Your task to perform on an android device: Open ESPN.com Image 0: 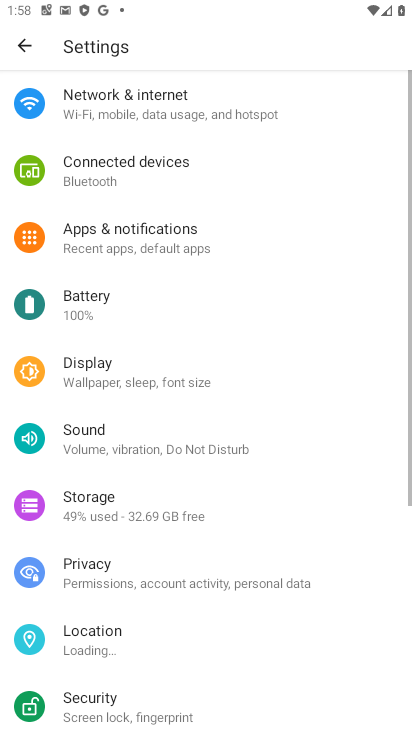
Step 0: press home button
Your task to perform on an android device: Open ESPN.com Image 1: 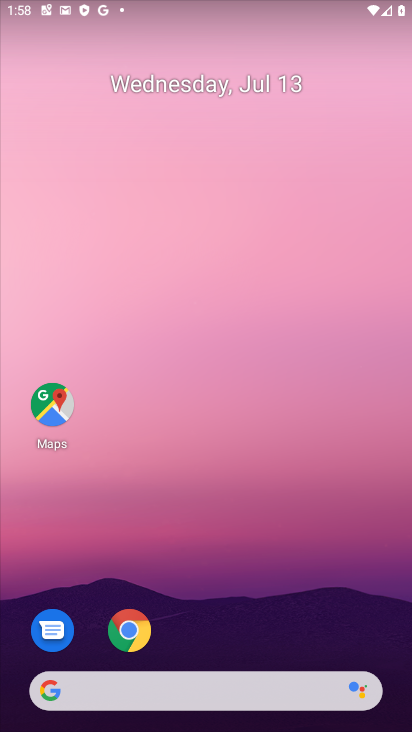
Step 1: drag from (247, 633) to (336, 86)
Your task to perform on an android device: Open ESPN.com Image 2: 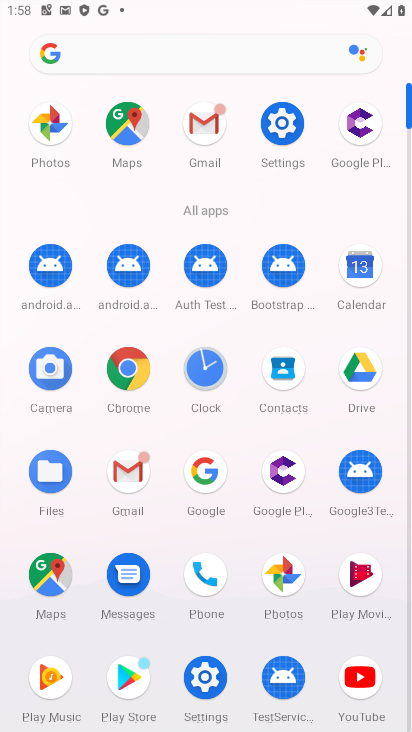
Step 2: click (208, 471)
Your task to perform on an android device: Open ESPN.com Image 3: 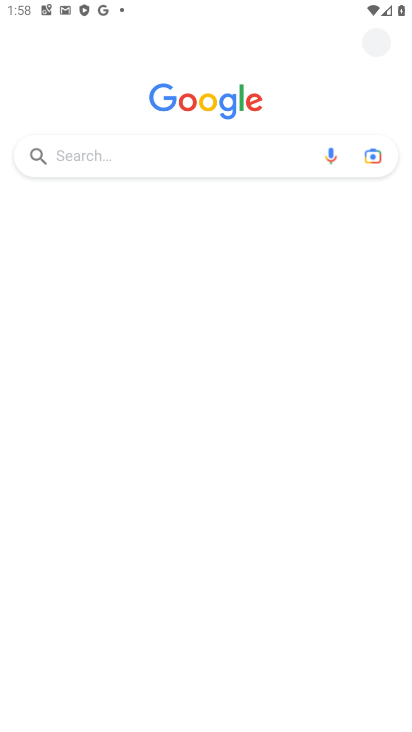
Step 3: click (160, 160)
Your task to perform on an android device: Open ESPN.com Image 4: 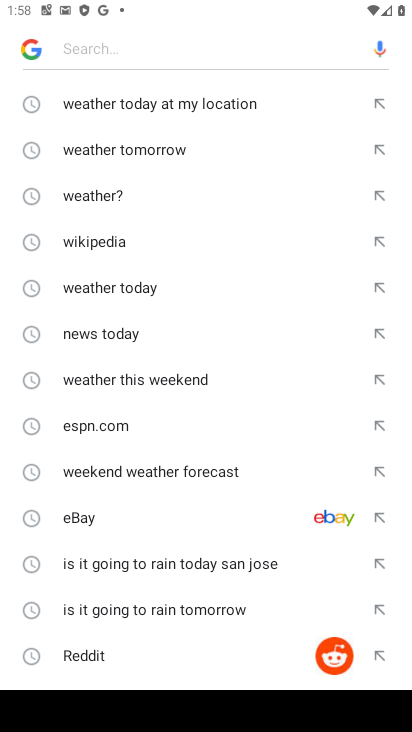
Step 4: type "espn.com"
Your task to perform on an android device: Open ESPN.com Image 5: 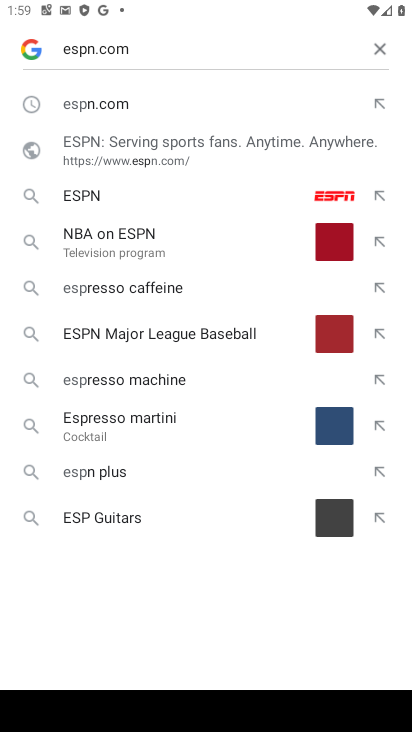
Step 5: click (118, 103)
Your task to perform on an android device: Open ESPN.com Image 6: 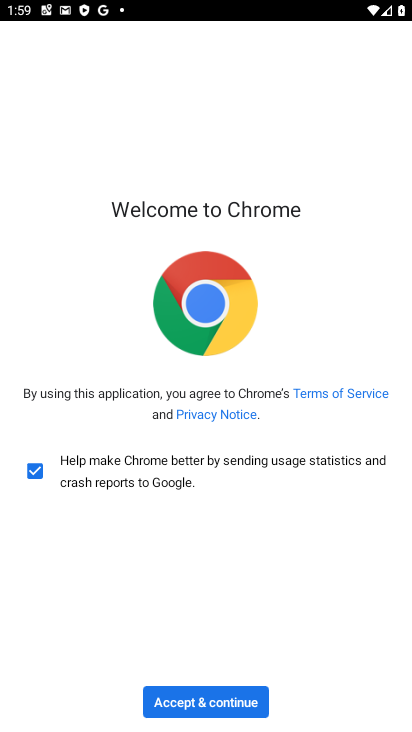
Step 6: click (198, 709)
Your task to perform on an android device: Open ESPN.com Image 7: 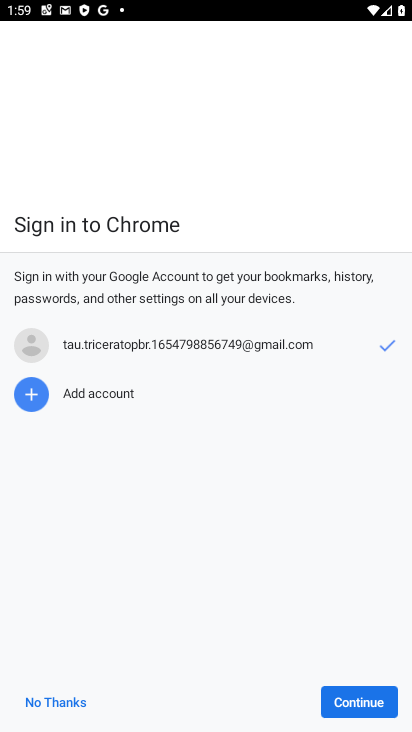
Step 7: click (351, 707)
Your task to perform on an android device: Open ESPN.com Image 8: 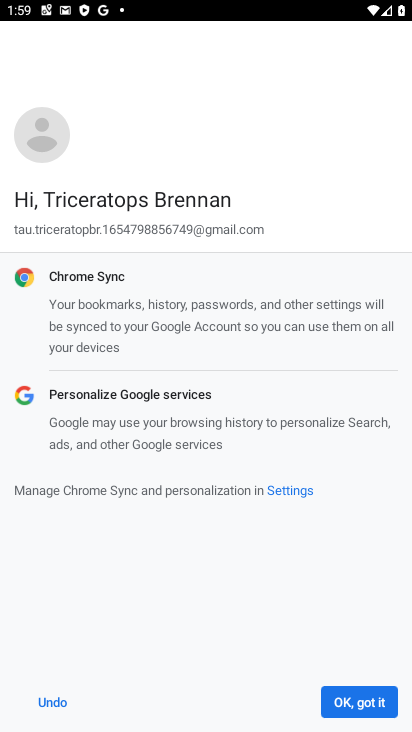
Step 8: click (351, 703)
Your task to perform on an android device: Open ESPN.com Image 9: 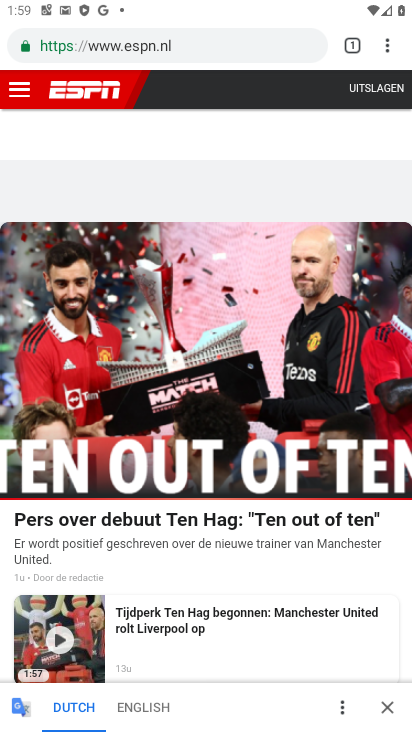
Step 9: task complete